Your task to perform on an android device: Go to Google maps Image 0: 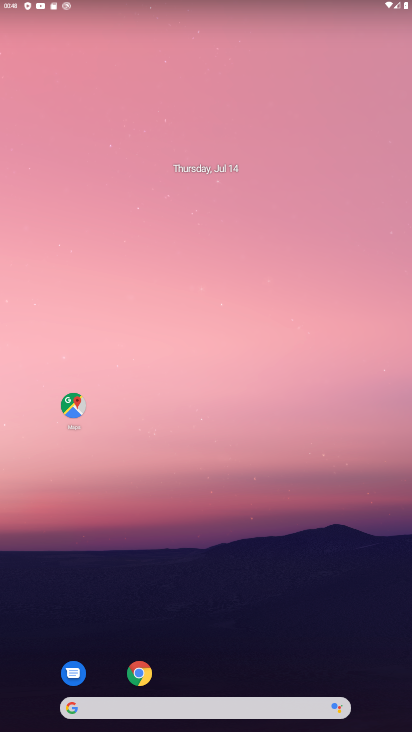
Step 0: click (80, 407)
Your task to perform on an android device: Go to Google maps Image 1: 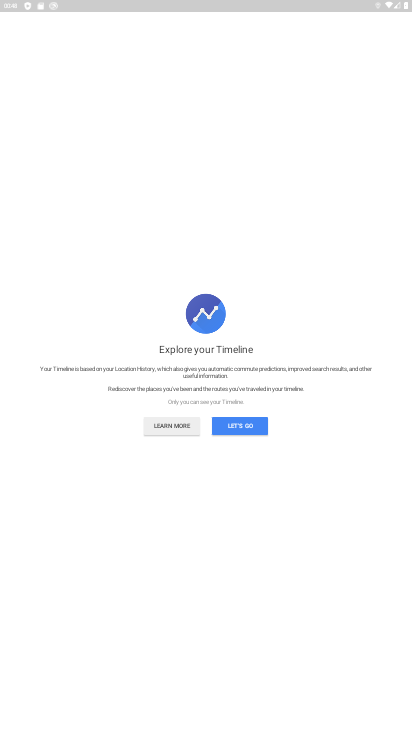
Step 1: click (256, 417)
Your task to perform on an android device: Go to Google maps Image 2: 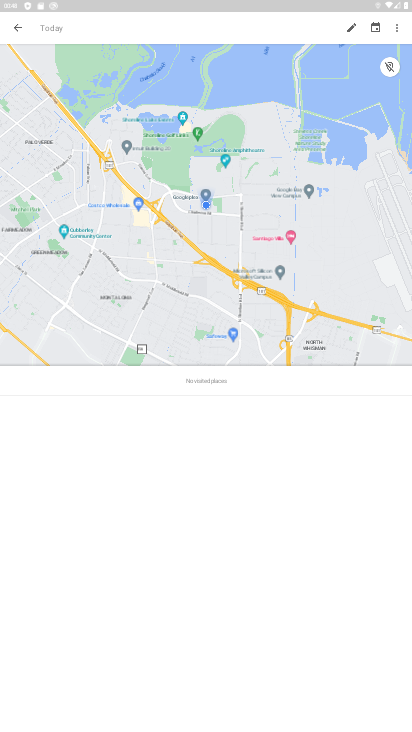
Step 2: task complete